Your task to perform on an android device: Clear all items from cart on ebay. Add "dell xps" to the cart on ebay, then select checkout. Image 0: 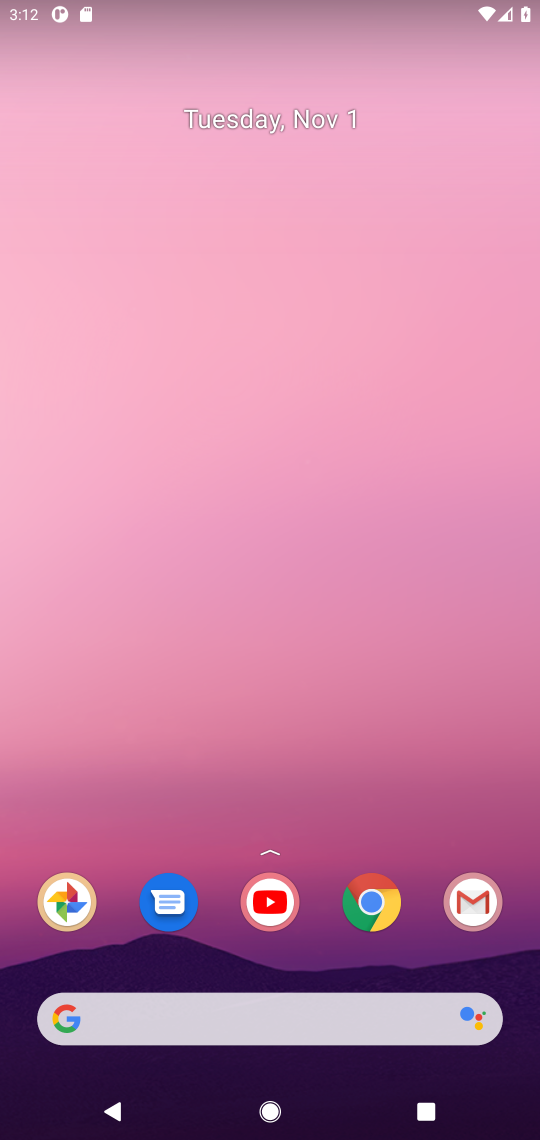
Step 0: click (372, 908)
Your task to perform on an android device: Clear all items from cart on ebay. Add "dell xps" to the cart on ebay, then select checkout. Image 1: 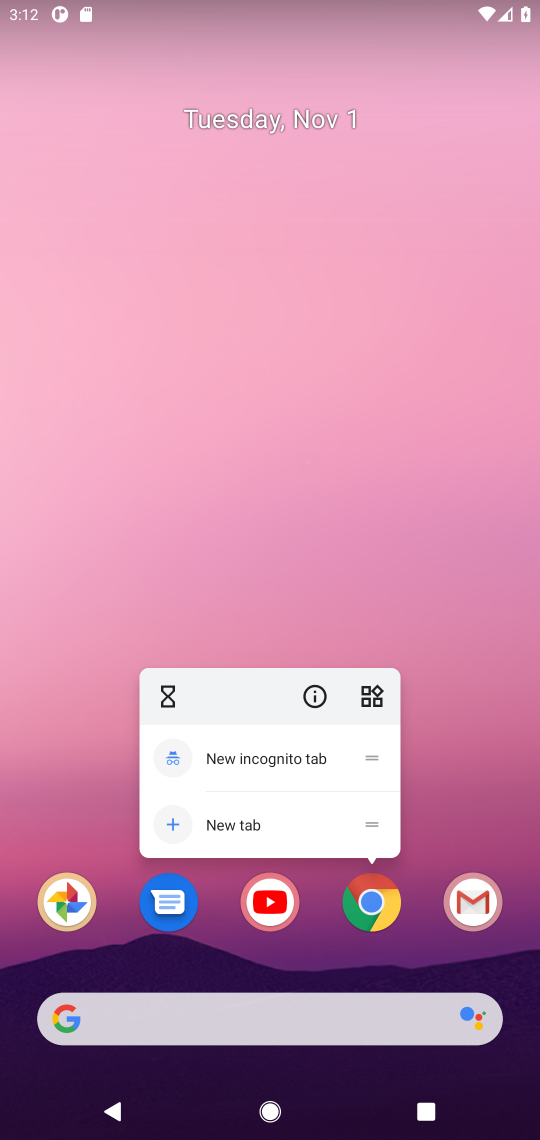
Step 1: click (374, 898)
Your task to perform on an android device: Clear all items from cart on ebay. Add "dell xps" to the cart on ebay, then select checkout. Image 2: 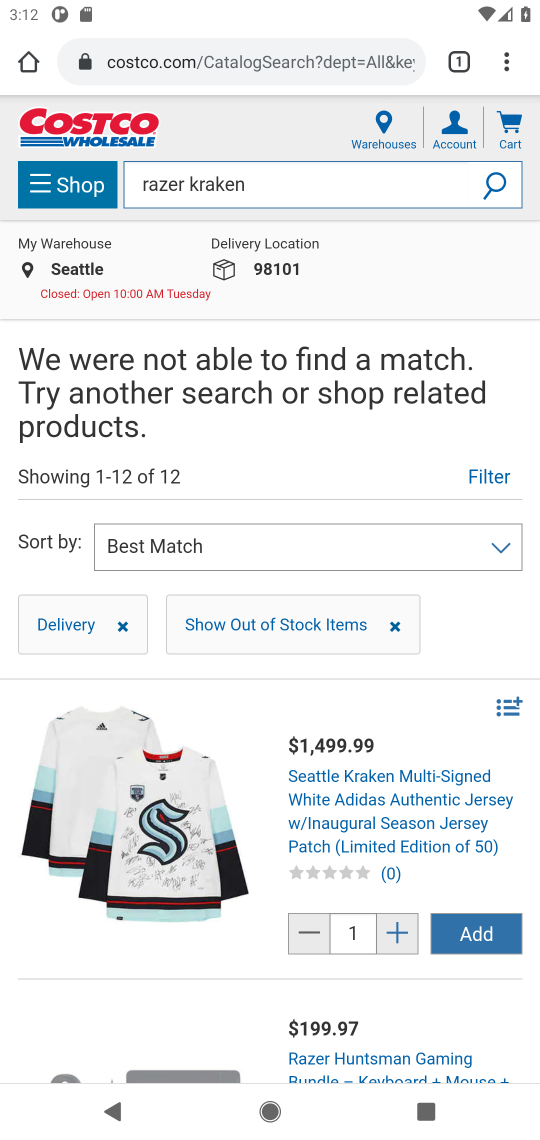
Step 2: click (255, 54)
Your task to perform on an android device: Clear all items from cart on ebay. Add "dell xps" to the cart on ebay, then select checkout. Image 3: 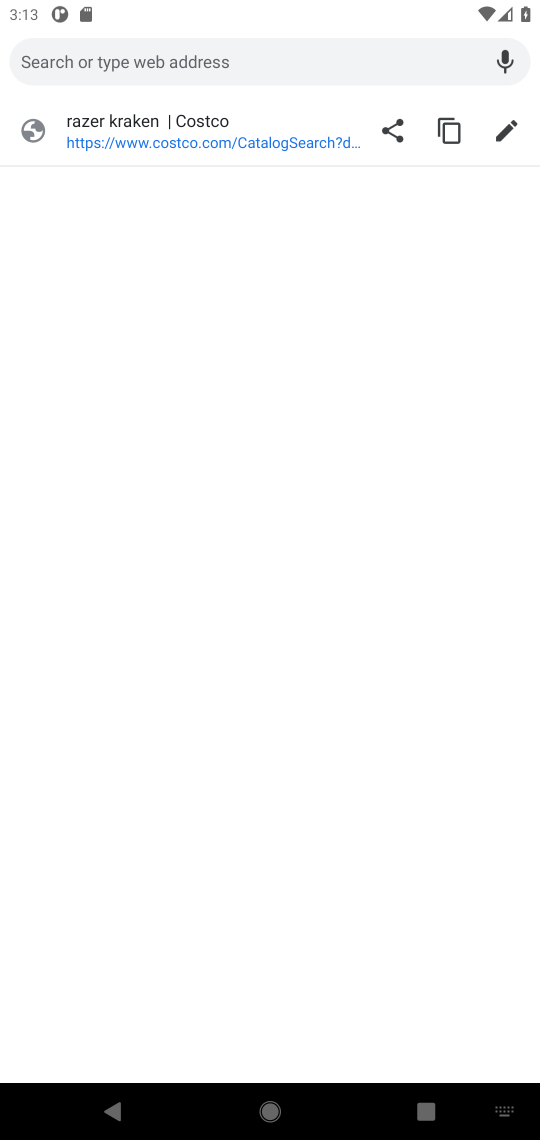
Step 3: type "ebay"
Your task to perform on an android device: Clear all items from cart on ebay. Add "dell xps" to the cart on ebay, then select checkout. Image 4: 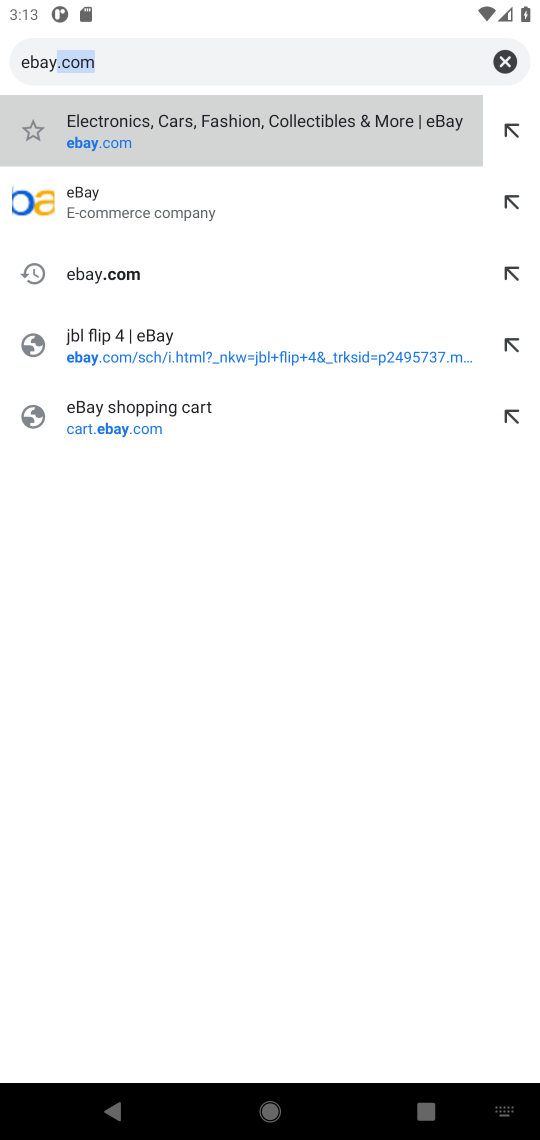
Step 4: click (102, 216)
Your task to perform on an android device: Clear all items from cart on ebay. Add "dell xps" to the cart on ebay, then select checkout. Image 5: 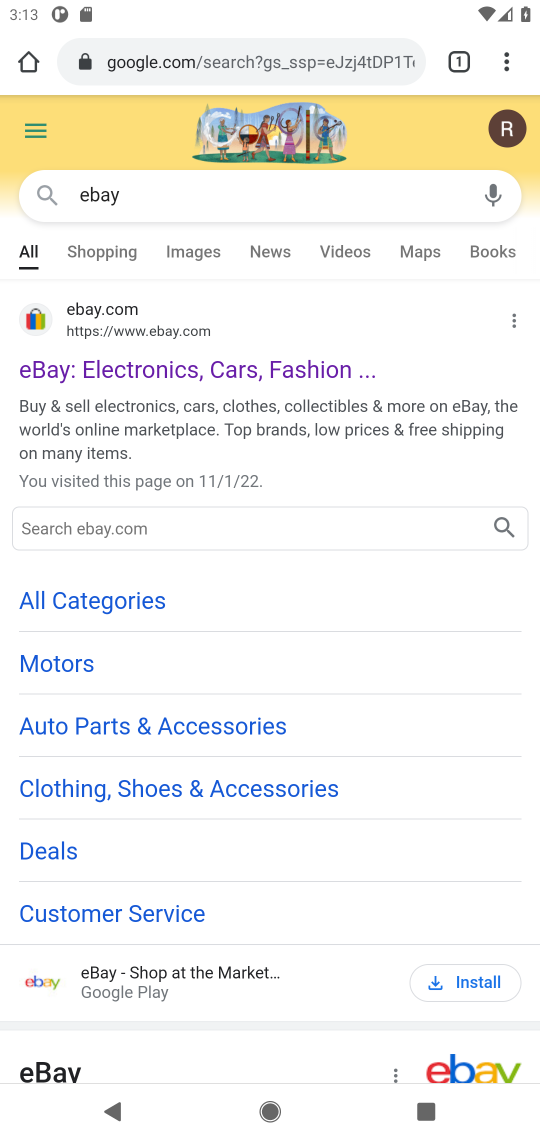
Step 5: click (112, 357)
Your task to perform on an android device: Clear all items from cart on ebay. Add "dell xps" to the cart on ebay, then select checkout. Image 6: 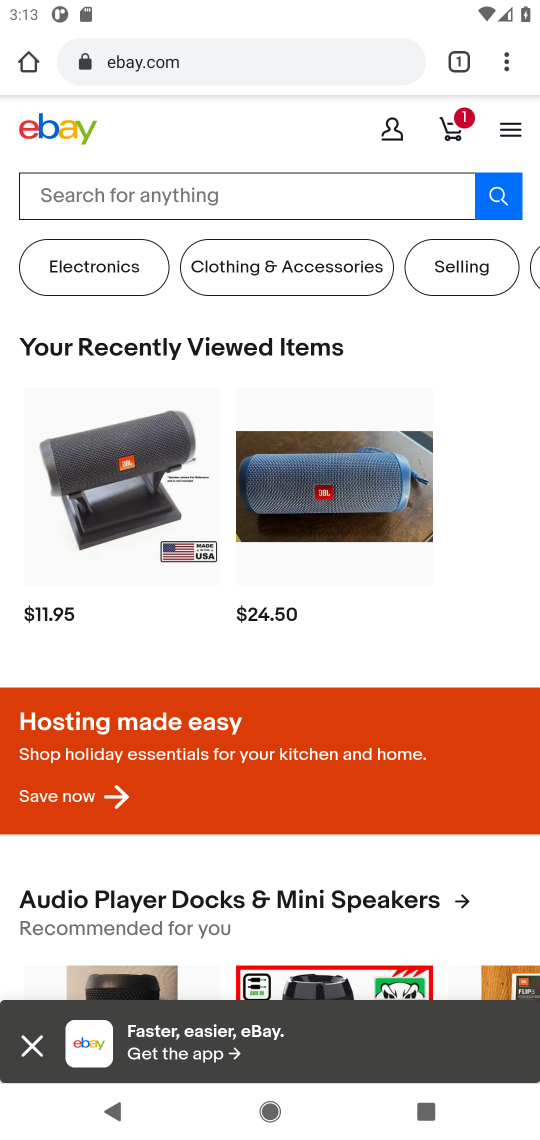
Step 6: click (455, 131)
Your task to perform on an android device: Clear all items from cart on ebay. Add "dell xps" to the cart on ebay, then select checkout. Image 7: 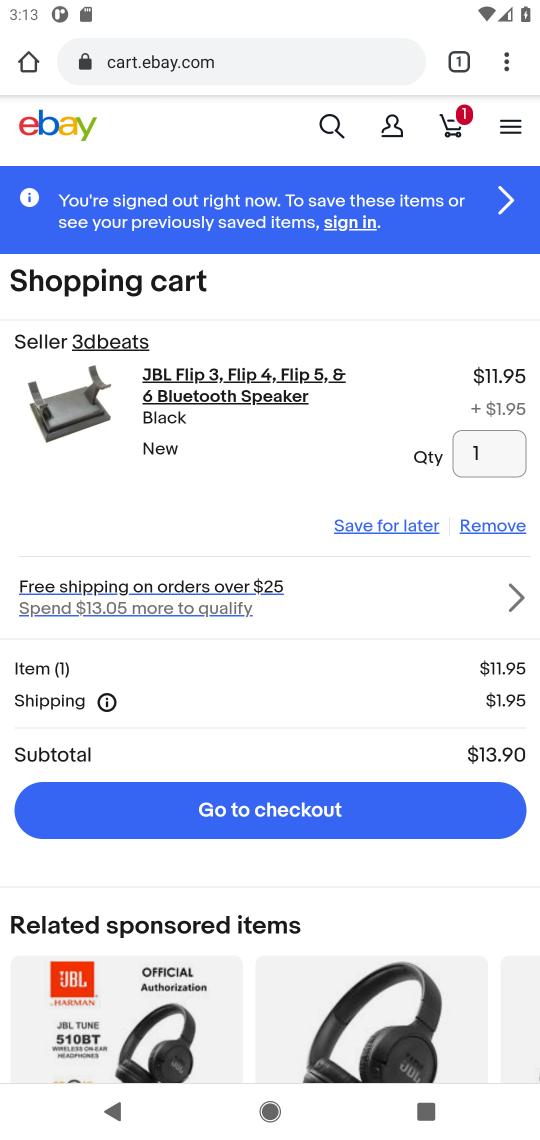
Step 7: click (478, 525)
Your task to perform on an android device: Clear all items from cart on ebay. Add "dell xps" to the cart on ebay, then select checkout. Image 8: 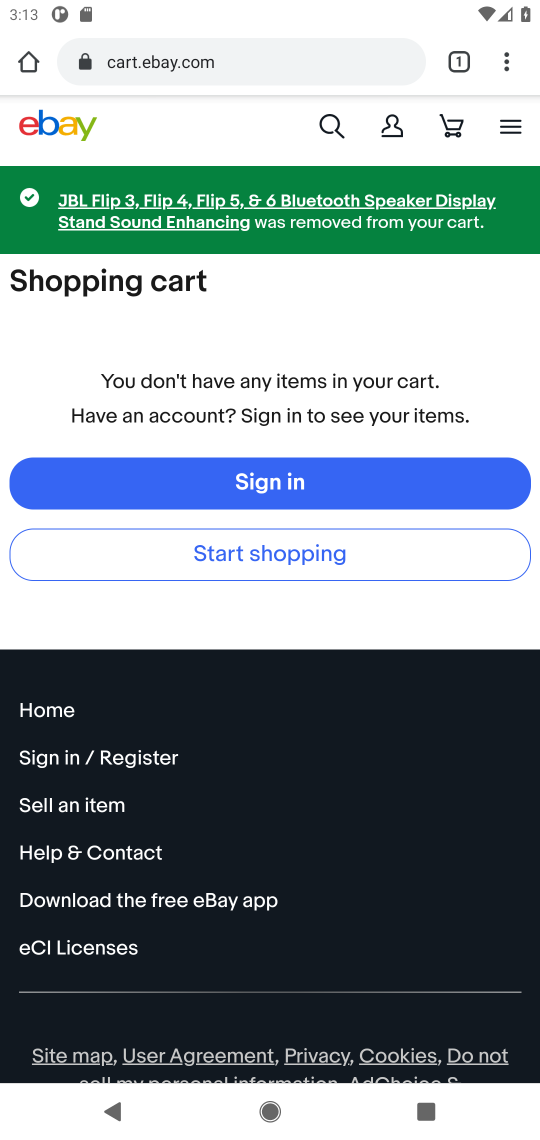
Step 8: click (329, 129)
Your task to perform on an android device: Clear all items from cart on ebay. Add "dell xps" to the cart on ebay, then select checkout. Image 9: 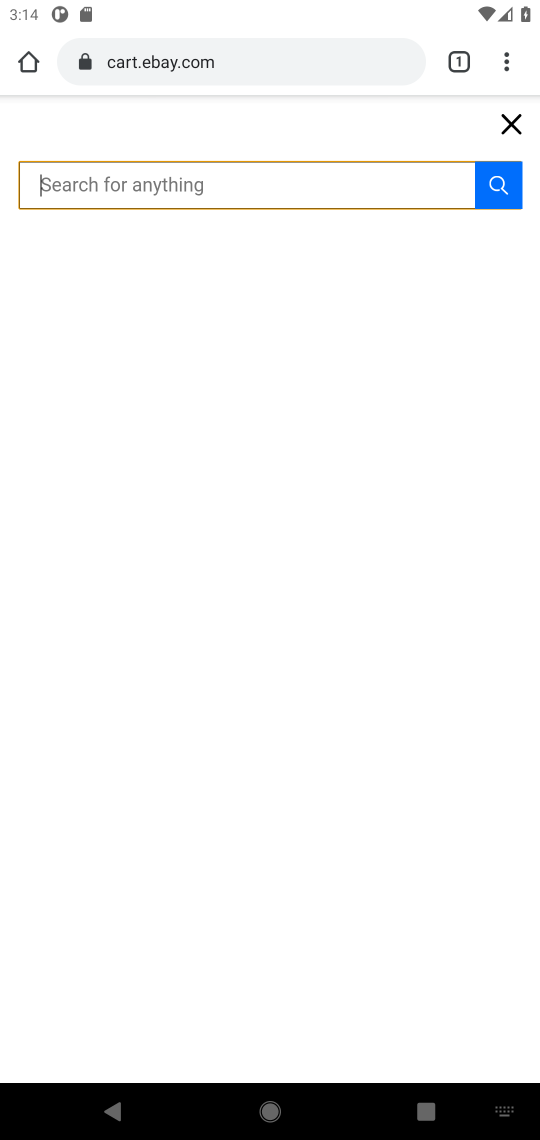
Step 9: type "dell xps"
Your task to perform on an android device: Clear all items from cart on ebay. Add "dell xps" to the cart on ebay, then select checkout. Image 10: 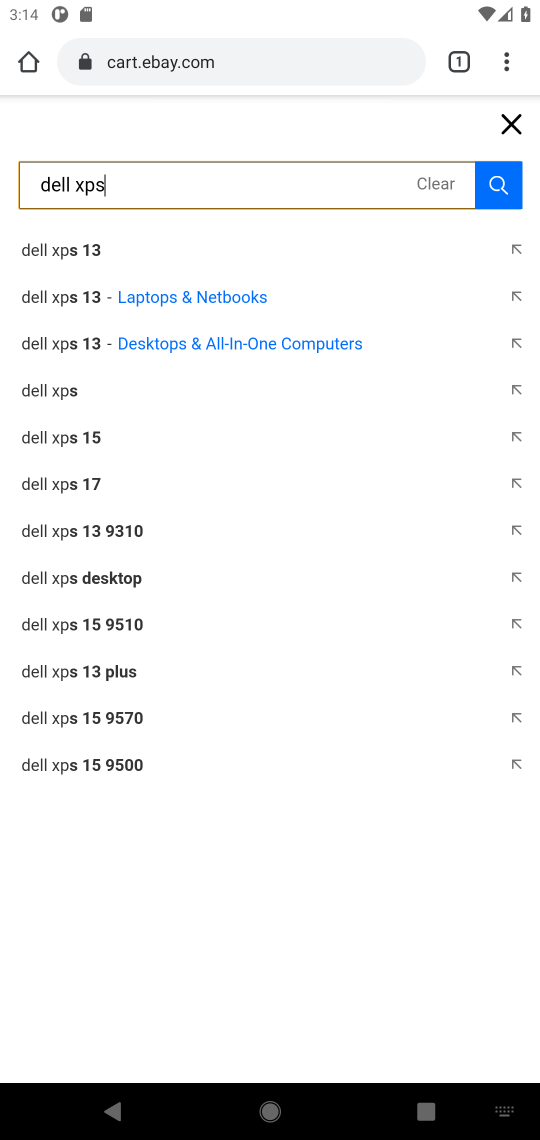
Step 10: click (500, 184)
Your task to perform on an android device: Clear all items from cart on ebay. Add "dell xps" to the cart on ebay, then select checkout. Image 11: 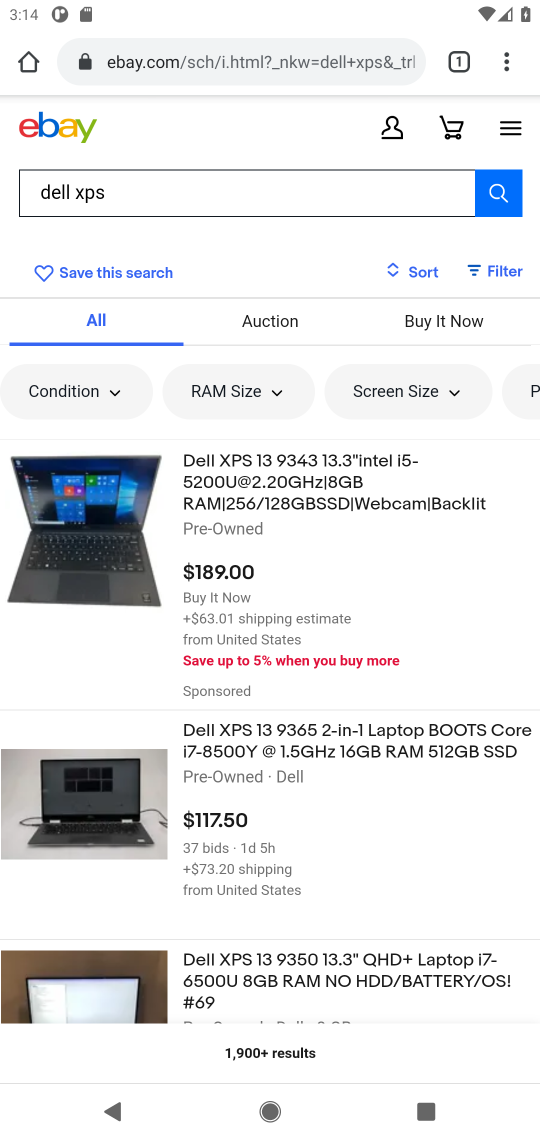
Step 11: click (215, 472)
Your task to perform on an android device: Clear all items from cart on ebay. Add "dell xps" to the cart on ebay, then select checkout. Image 12: 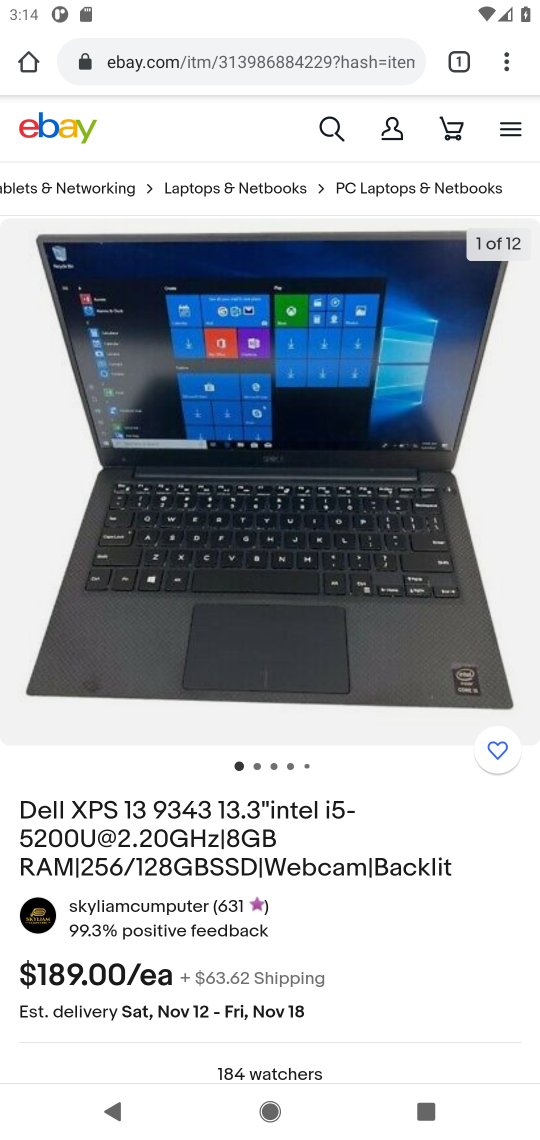
Step 12: drag from (337, 995) to (326, 457)
Your task to perform on an android device: Clear all items from cart on ebay. Add "dell xps" to the cart on ebay, then select checkout. Image 13: 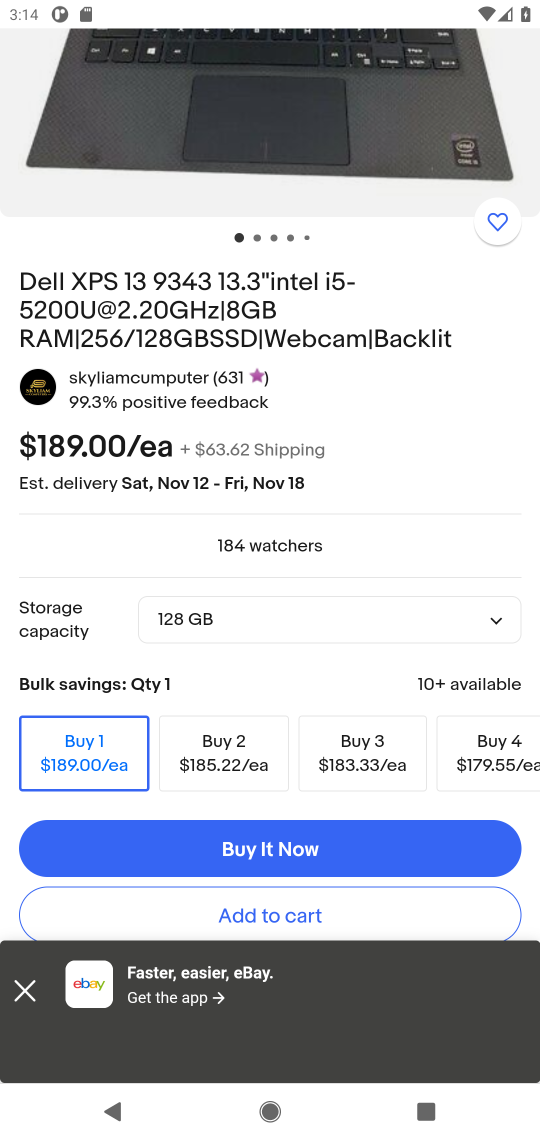
Step 13: click (279, 908)
Your task to perform on an android device: Clear all items from cart on ebay. Add "dell xps" to the cart on ebay, then select checkout. Image 14: 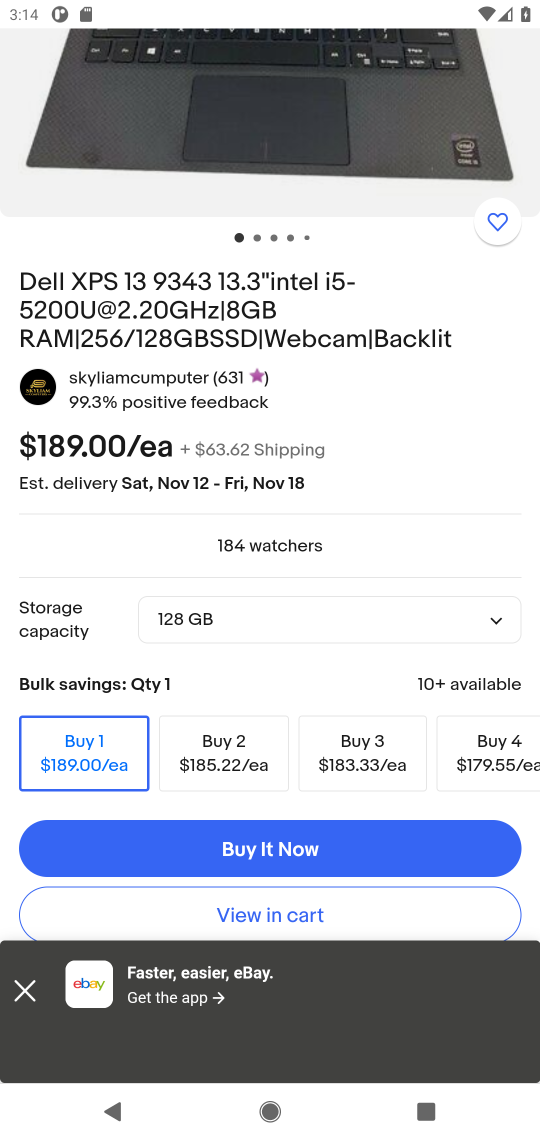
Step 14: click (250, 913)
Your task to perform on an android device: Clear all items from cart on ebay. Add "dell xps" to the cart on ebay, then select checkout. Image 15: 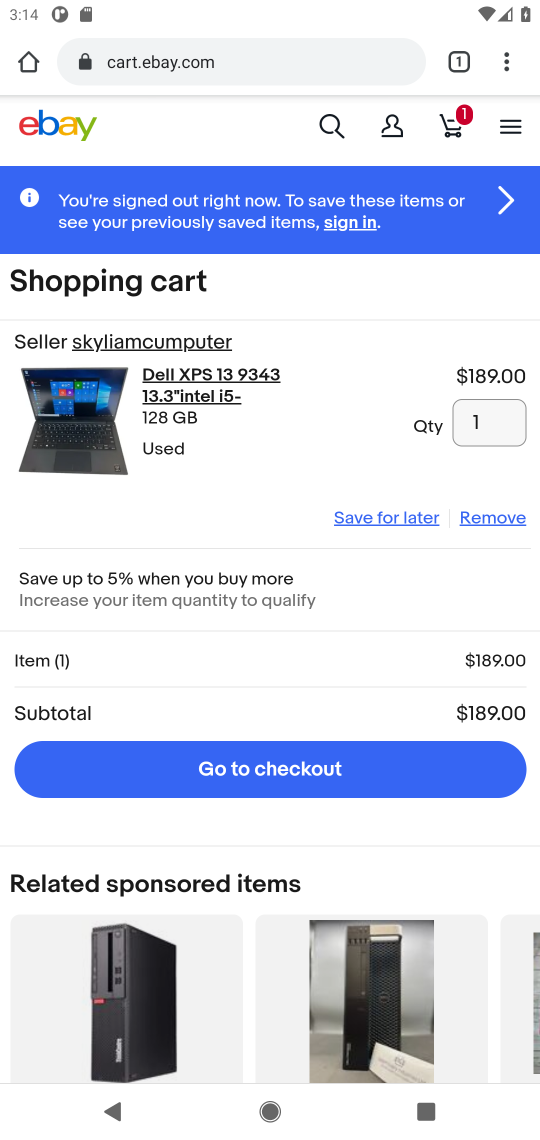
Step 15: click (260, 773)
Your task to perform on an android device: Clear all items from cart on ebay. Add "dell xps" to the cart on ebay, then select checkout. Image 16: 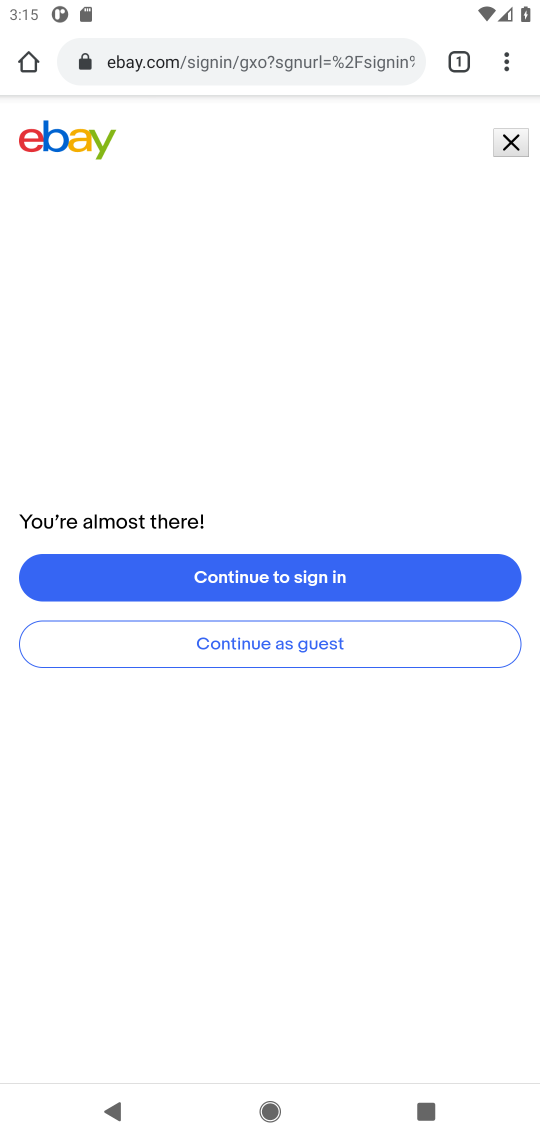
Step 16: task complete